Your task to perform on an android device: toggle priority inbox in the gmail app Image 0: 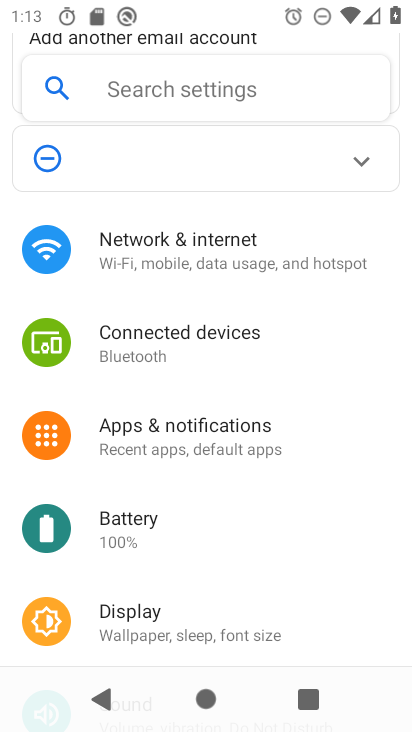
Step 0: press home button
Your task to perform on an android device: toggle priority inbox in the gmail app Image 1: 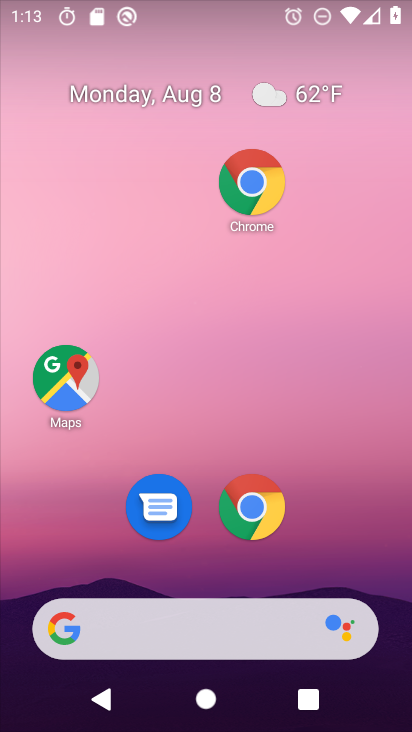
Step 1: drag from (323, 428) to (315, 37)
Your task to perform on an android device: toggle priority inbox in the gmail app Image 2: 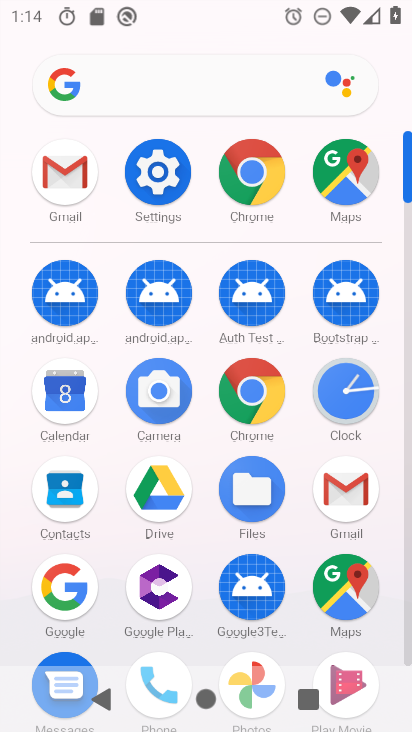
Step 2: click (343, 491)
Your task to perform on an android device: toggle priority inbox in the gmail app Image 3: 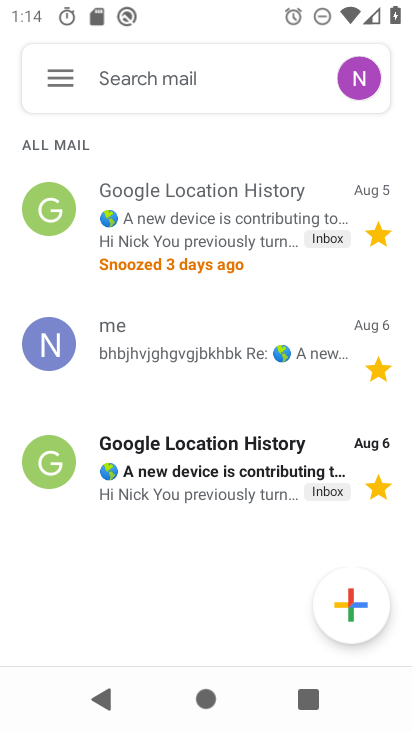
Step 3: click (49, 75)
Your task to perform on an android device: toggle priority inbox in the gmail app Image 4: 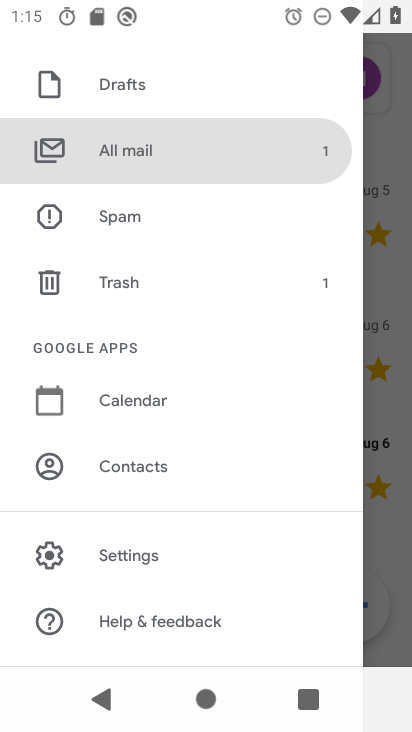
Step 4: click (113, 551)
Your task to perform on an android device: toggle priority inbox in the gmail app Image 5: 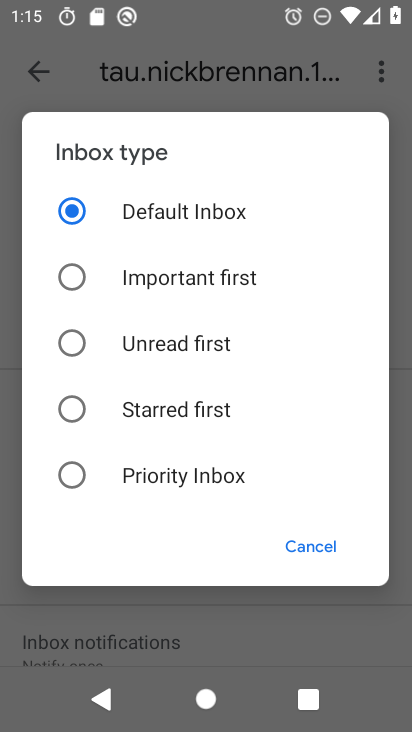
Step 5: click (112, 483)
Your task to perform on an android device: toggle priority inbox in the gmail app Image 6: 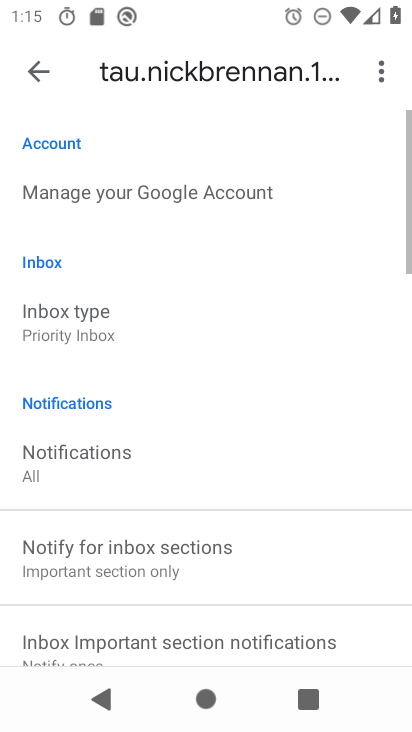
Step 6: task complete